Your task to perform on an android device: turn off picture-in-picture Image 0: 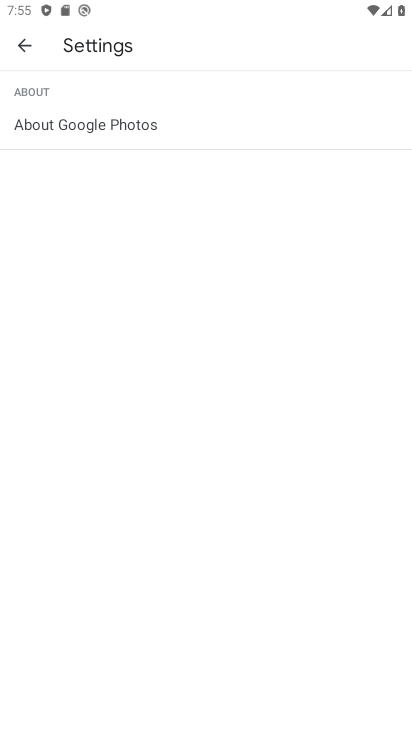
Step 0: press home button
Your task to perform on an android device: turn off picture-in-picture Image 1: 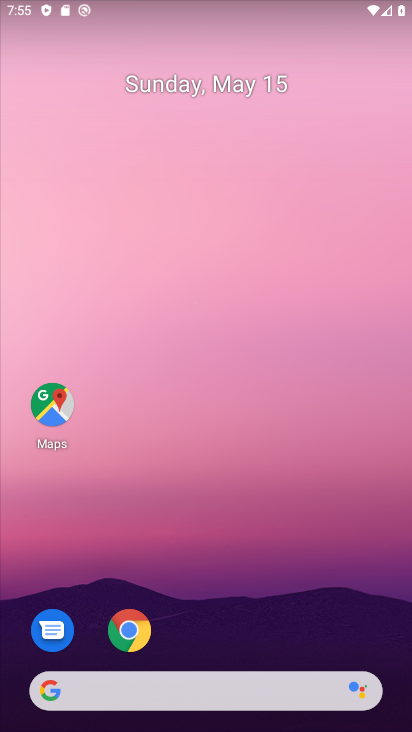
Step 1: click (134, 630)
Your task to perform on an android device: turn off picture-in-picture Image 2: 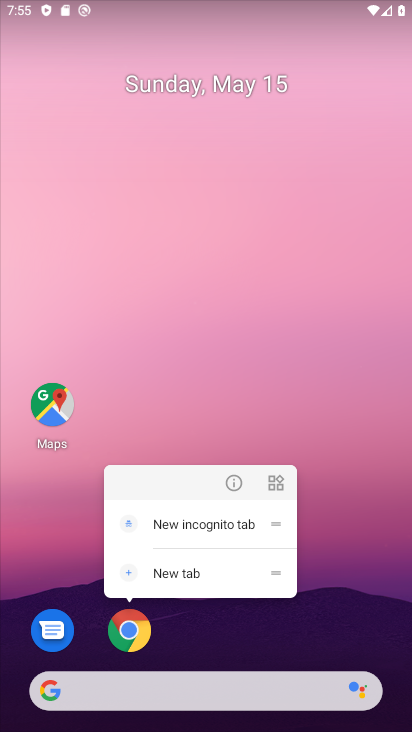
Step 2: click (234, 483)
Your task to perform on an android device: turn off picture-in-picture Image 3: 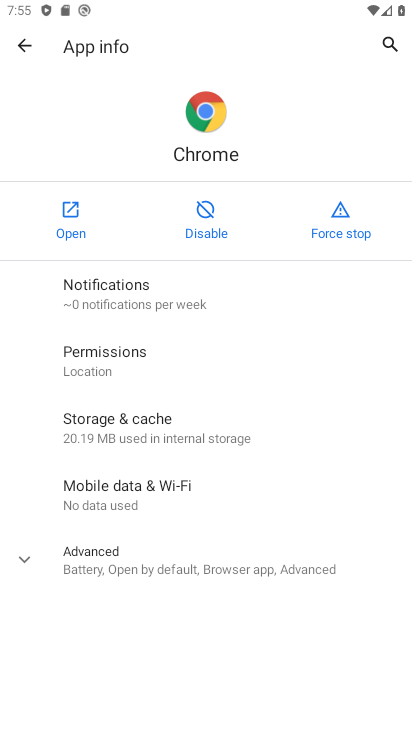
Step 3: click (93, 548)
Your task to perform on an android device: turn off picture-in-picture Image 4: 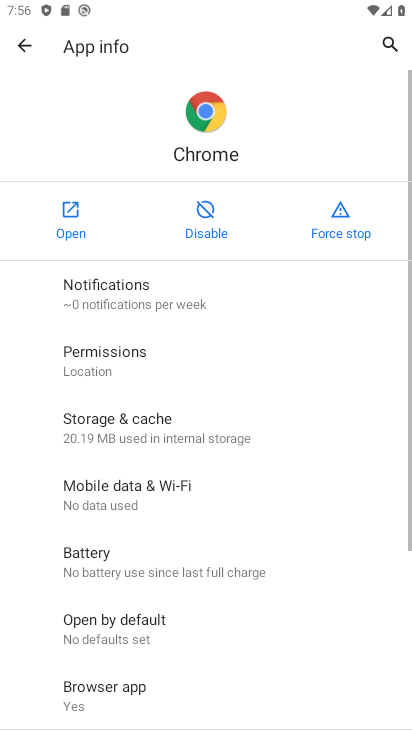
Step 4: drag from (125, 624) to (166, 381)
Your task to perform on an android device: turn off picture-in-picture Image 5: 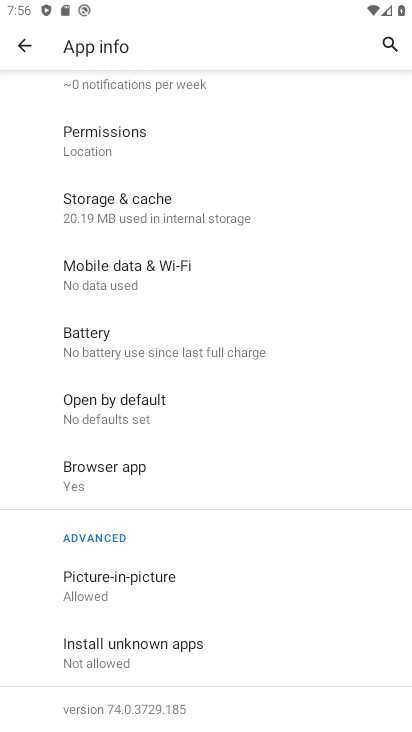
Step 5: click (114, 596)
Your task to perform on an android device: turn off picture-in-picture Image 6: 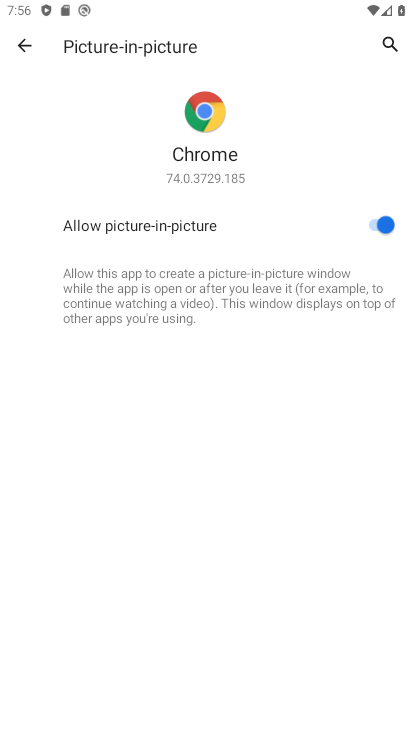
Step 6: click (363, 237)
Your task to perform on an android device: turn off picture-in-picture Image 7: 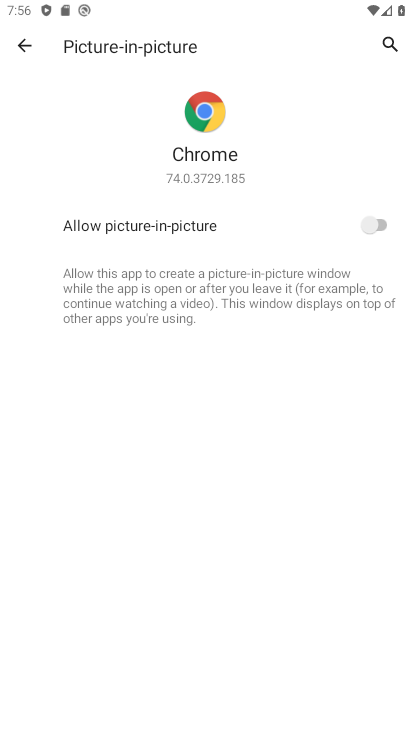
Step 7: task complete